Your task to perform on an android device: turn vacation reply on in the gmail app Image 0: 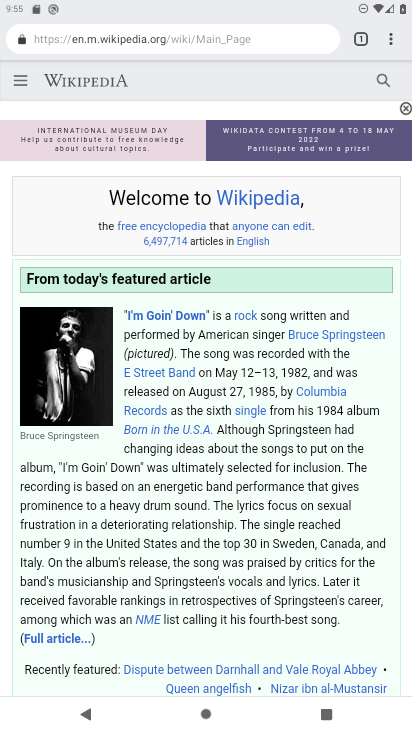
Step 0: press home button
Your task to perform on an android device: turn vacation reply on in the gmail app Image 1: 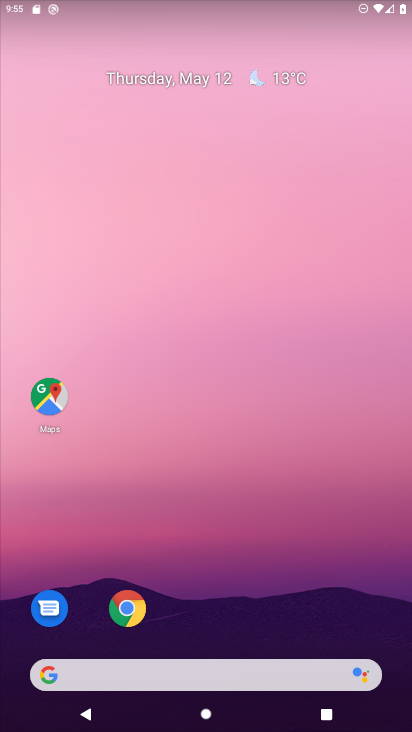
Step 1: drag from (217, 608) to (228, 150)
Your task to perform on an android device: turn vacation reply on in the gmail app Image 2: 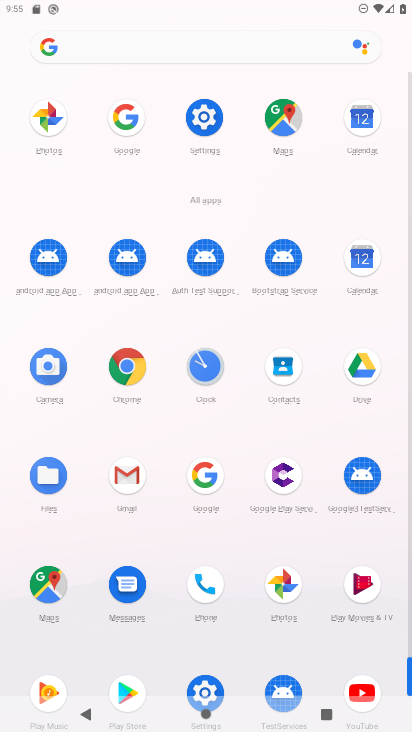
Step 2: click (122, 476)
Your task to perform on an android device: turn vacation reply on in the gmail app Image 3: 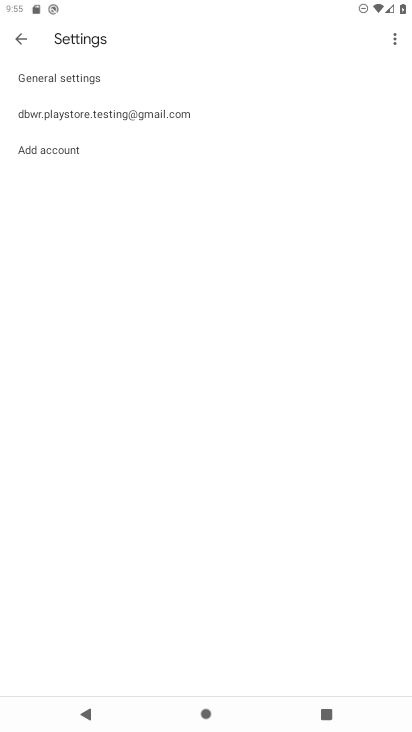
Step 3: click (43, 112)
Your task to perform on an android device: turn vacation reply on in the gmail app Image 4: 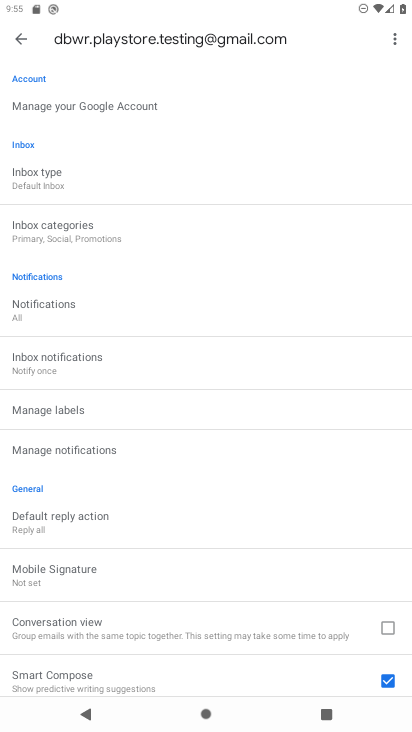
Step 4: drag from (126, 657) to (145, 274)
Your task to perform on an android device: turn vacation reply on in the gmail app Image 5: 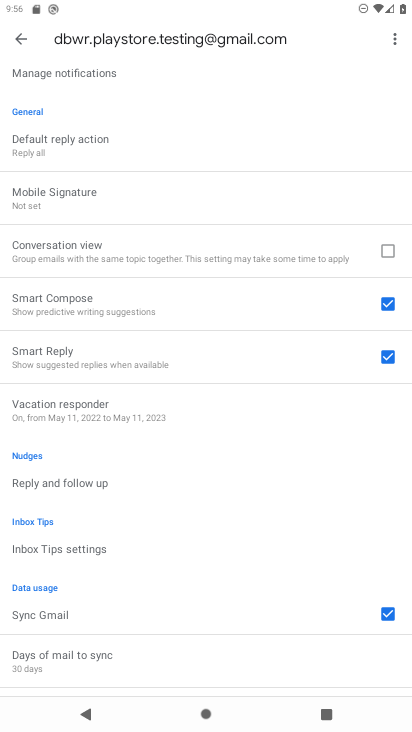
Step 5: click (110, 407)
Your task to perform on an android device: turn vacation reply on in the gmail app Image 6: 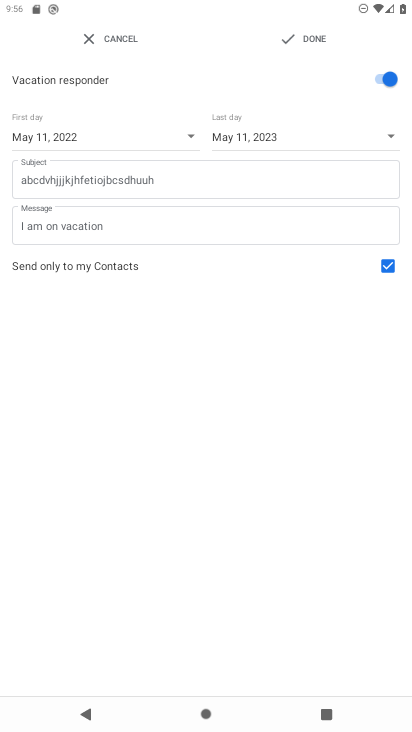
Step 6: task complete